Your task to perform on an android device: Open eBay Image 0: 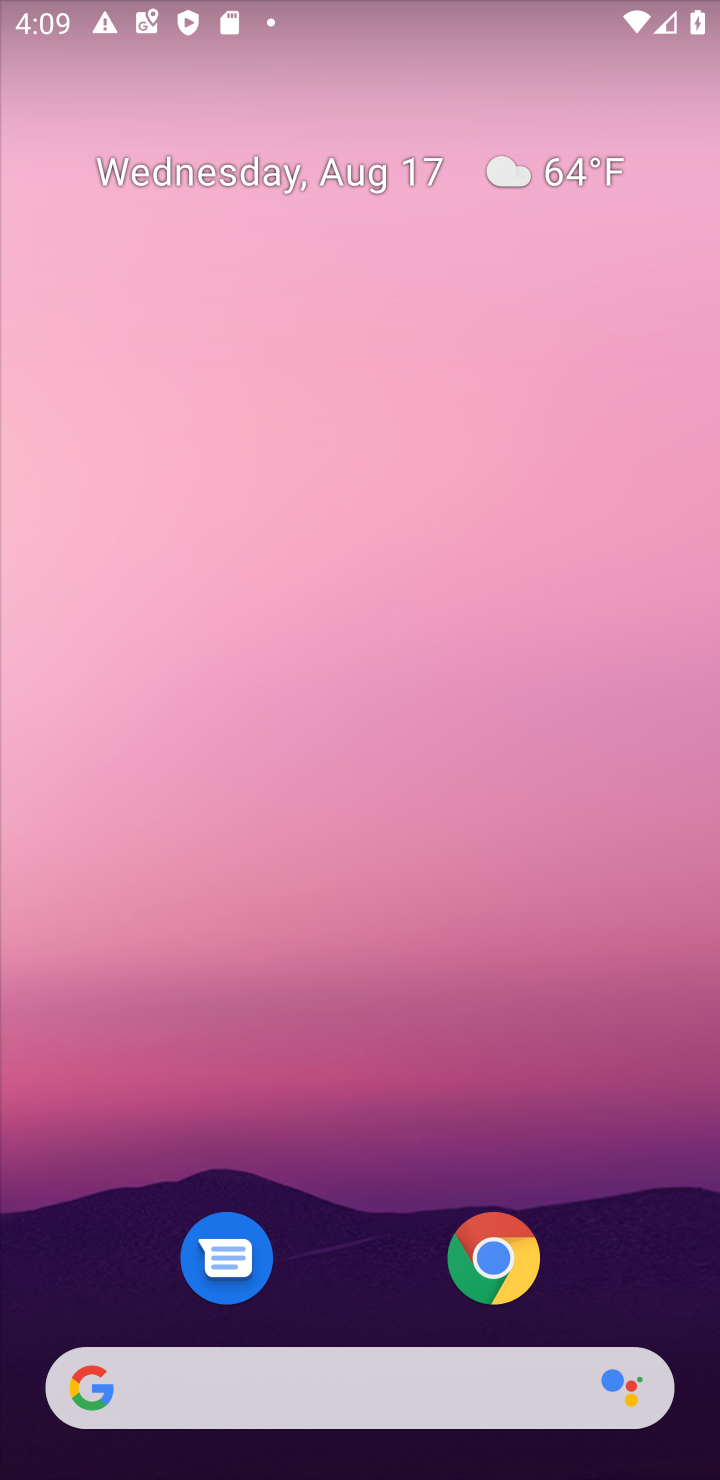
Step 0: click (504, 1242)
Your task to perform on an android device: Open eBay Image 1: 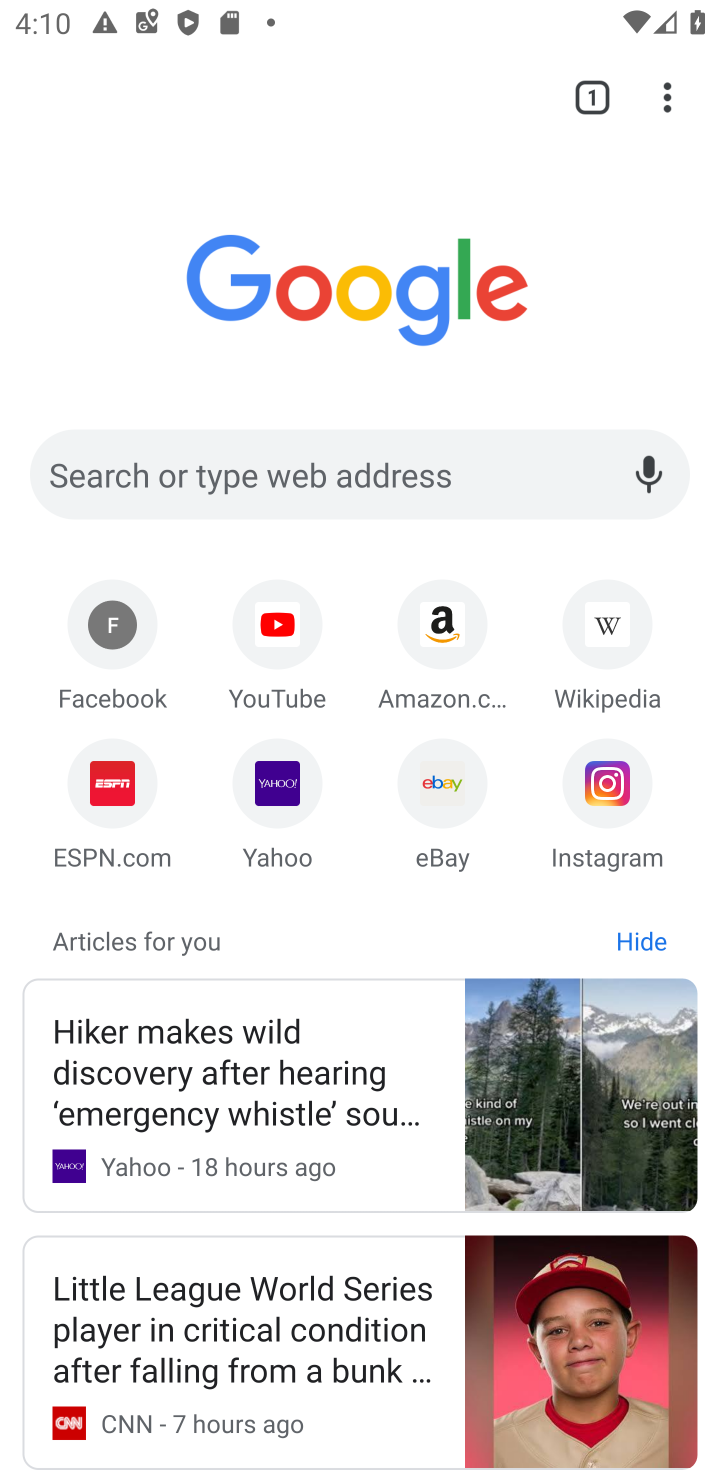
Step 1: click (450, 763)
Your task to perform on an android device: Open eBay Image 2: 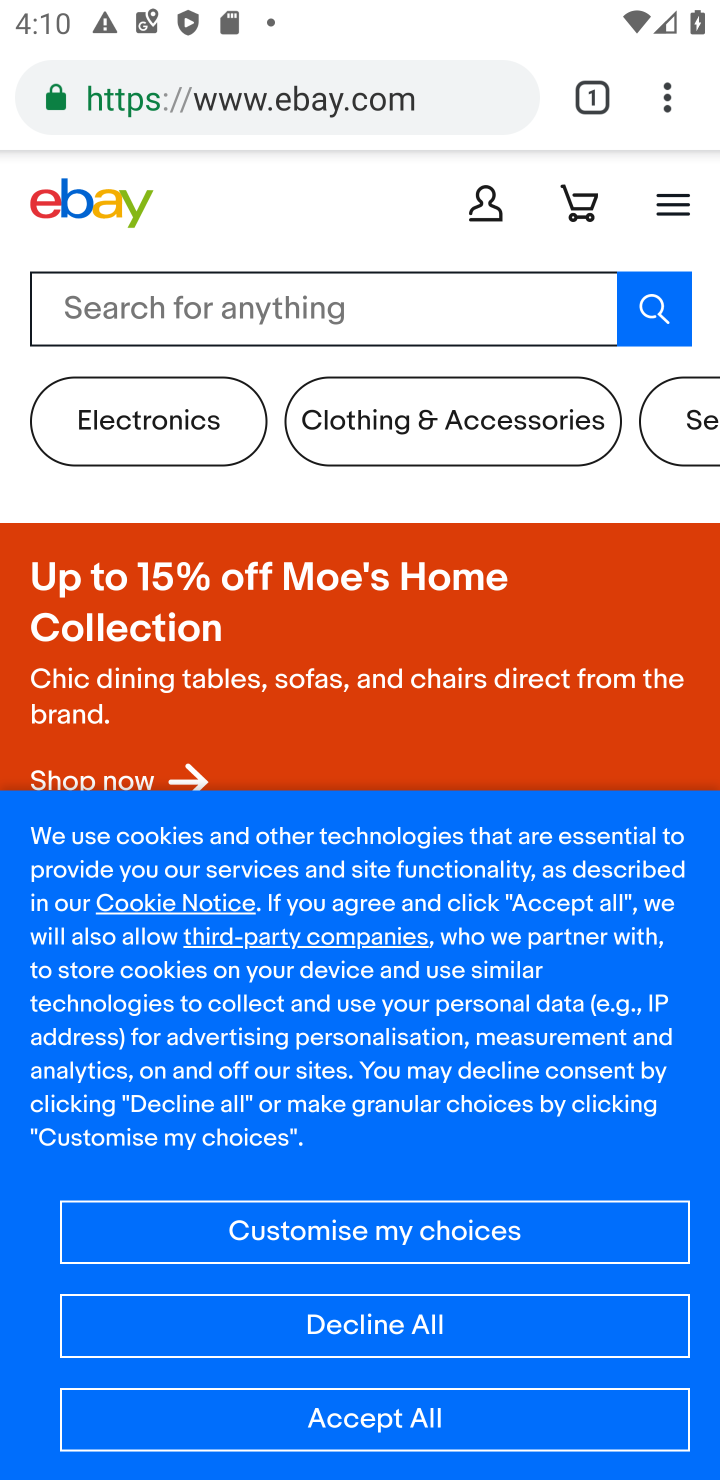
Step 2: task complete